Your task to perform on an android device: delete a single message in the gmail app Image 0: 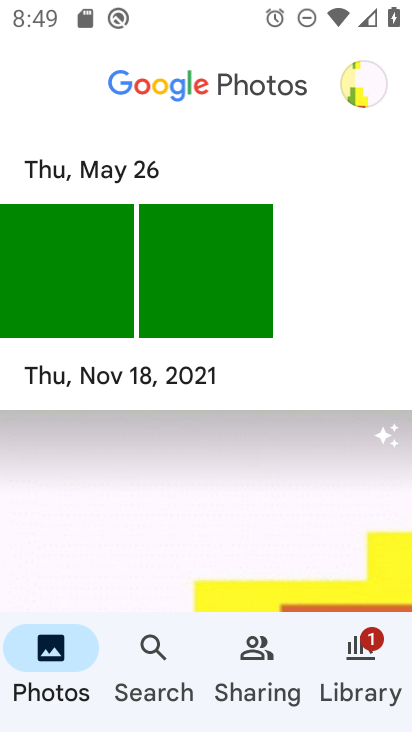
Step 0: press home button
Your task to perform on an android device: delete a single message in the gmail app Image 1: 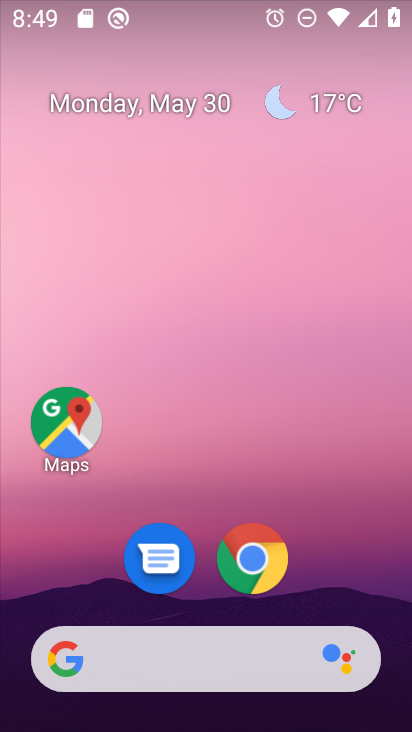
Step 1: drag from (300, 504) to (142, 89)
Your task to perform on an android device: delete a single message in the gmail app Image 2: 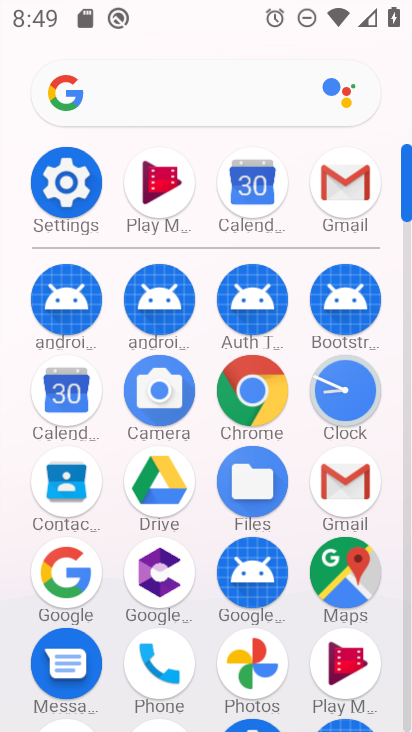
Step 2: click (332, 475)
Your task to perform on an android device: delete a single message in the gmail app Image 3: 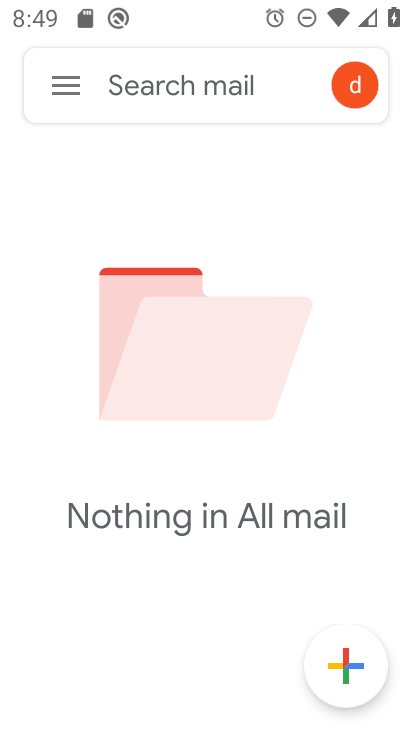
Step 3: click (61, 81)
Your task to perform on an android device: delete a single message in the gmail app Image 4: 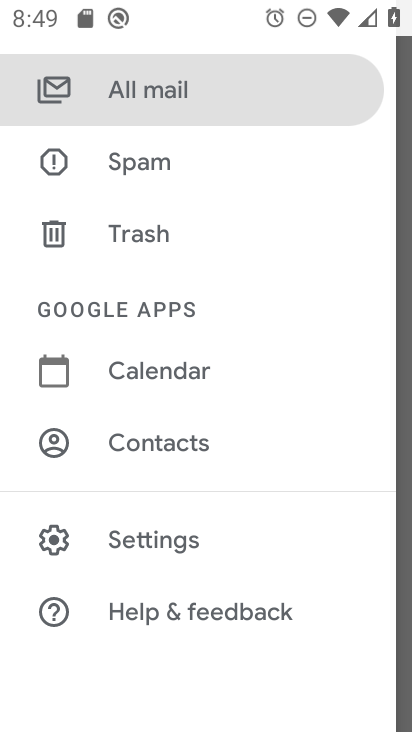
Step 4: click (156, 86)
Your task to perform on an android device: delete a single message in the gmail app Image 5: 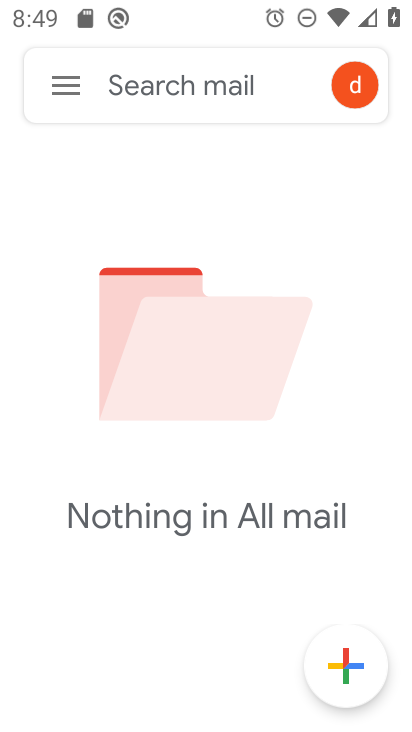
Step 5: task complete